Your task to perform on an android device: add a label to a message in the gmail app Image 0: 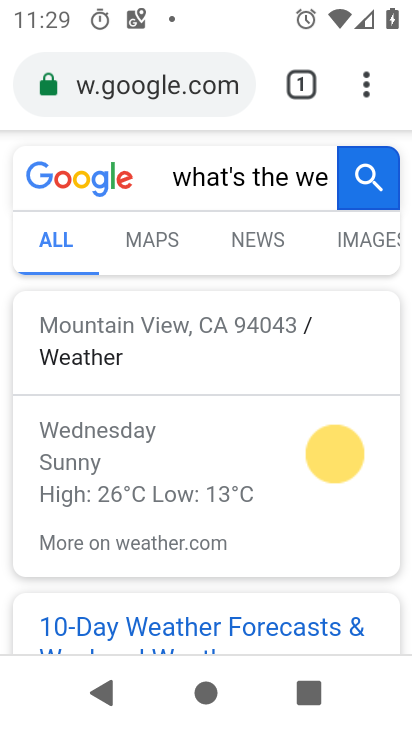
Step 0: press back button
Your task to perform on an android device: add a label to a message in the gmail app Image 1: 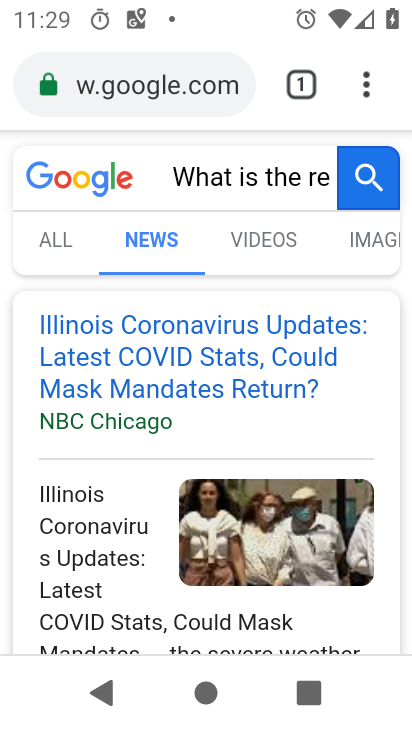
Step 1: press home button
Your task to perform on an android device: add a label to a message in the gmail app Image 2: 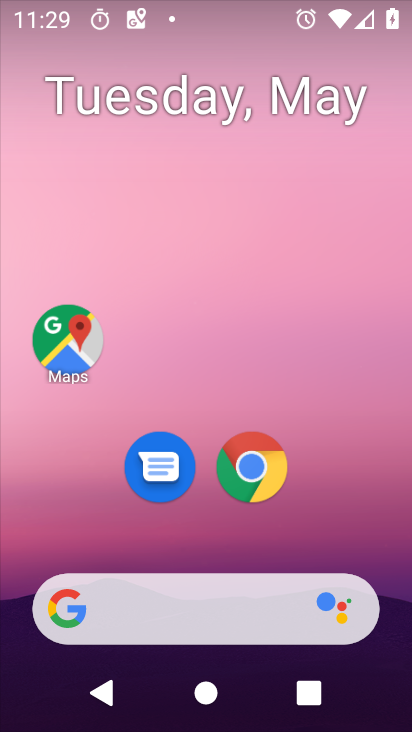
Step 2: drag from (353, 497) to (269, 16)
Your task to perform on an android device: add a label to a message in the gmail app Image 3: 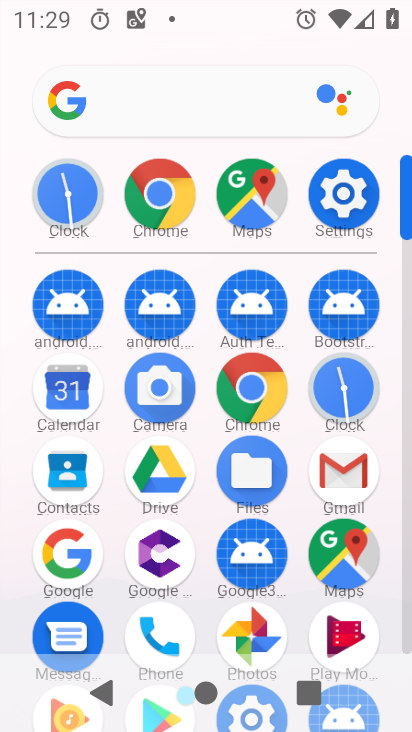
Step 3: click (340, 467)
Your task to perform on an android device: add a label to a message in the gmail app Image 4: 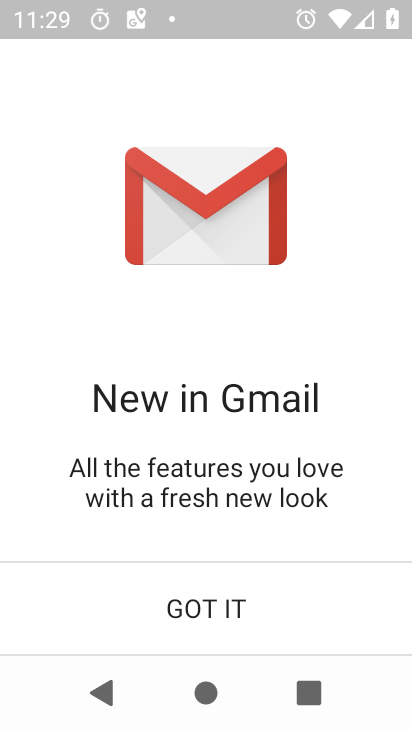
Step 4: click (238, 623)
Your task to perform on an android device: add a label to a message in the gmail app Image 5: 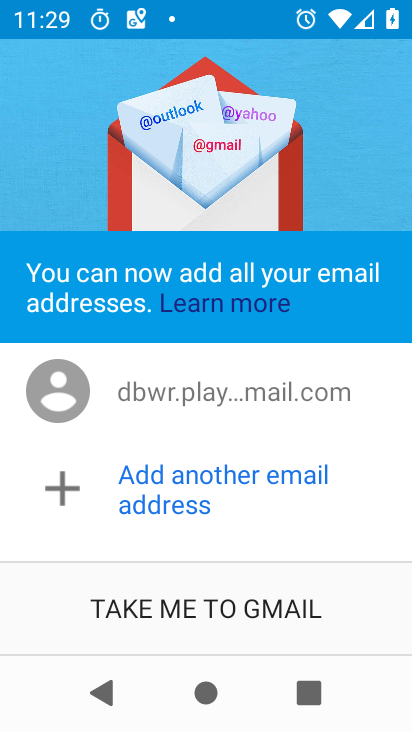
Step 5: click (238, 623)
Your task to perform on an android device: add a label to a message in the gmail app Image 6: 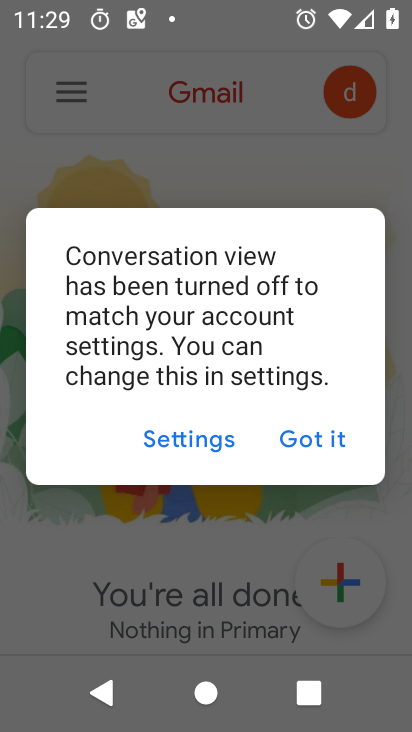
Step 6: click (294, 440)
Your task to perform on an android device: add a label to a message in the gmail app Image 7: 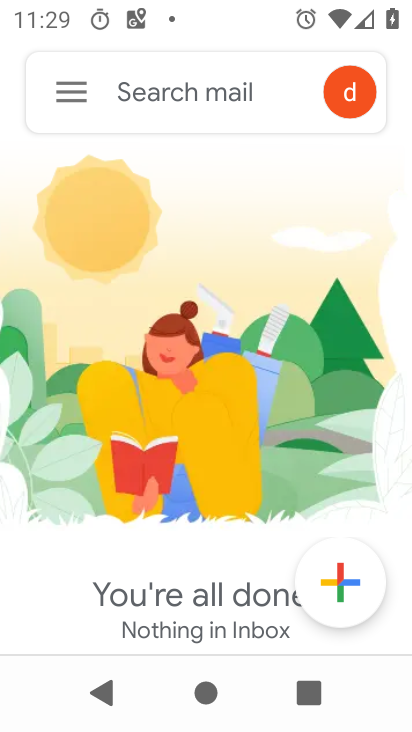
Step 7: click (59, 84)
Your task to perform on an android device: add a label to a message in the gmail app Image 8: 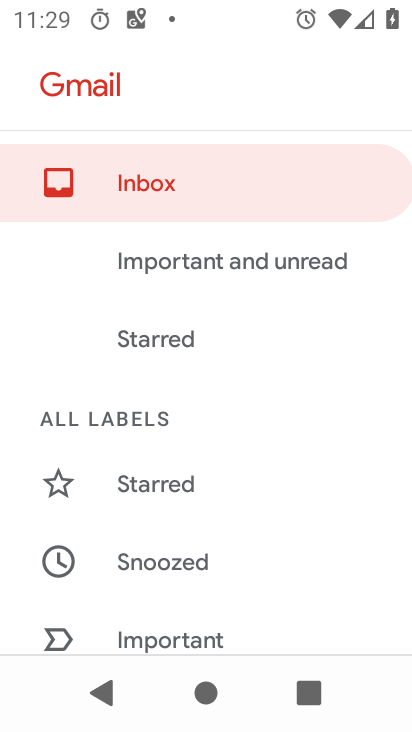
Step 8: drag from (232, 517) to (288, 139)
Your task to perform on an android device: add a label to a message in the gmail app Image 9: 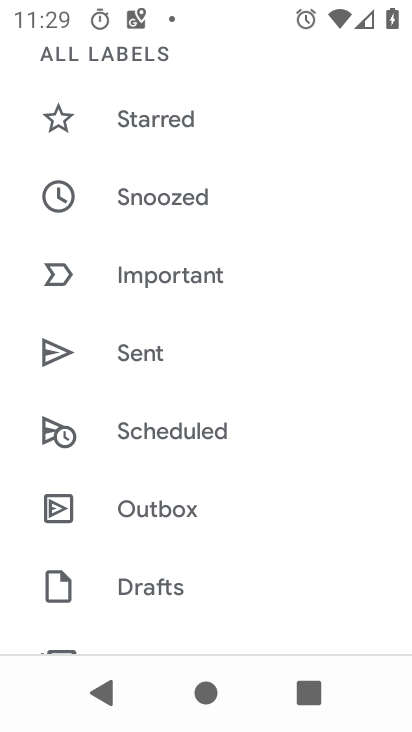
Step 9: drag from (203, 573) to (255, 169)
Your task to perform on an android device: add a label to a message in the gmail app Image 10: 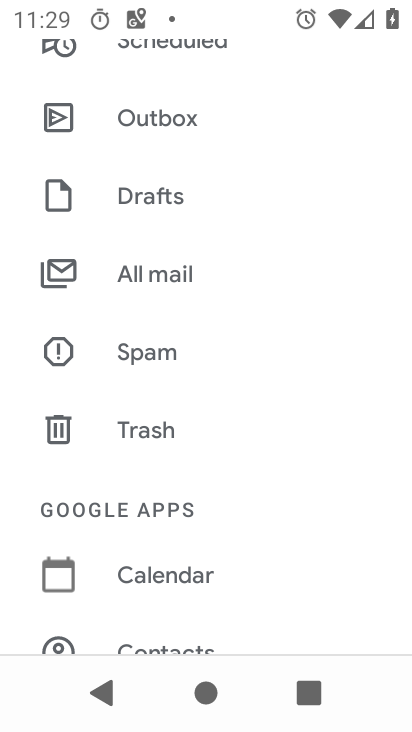
Step 10: click (184, 279)
Your task to perform on an android device: add a label to a message in the gmail app Image 11: 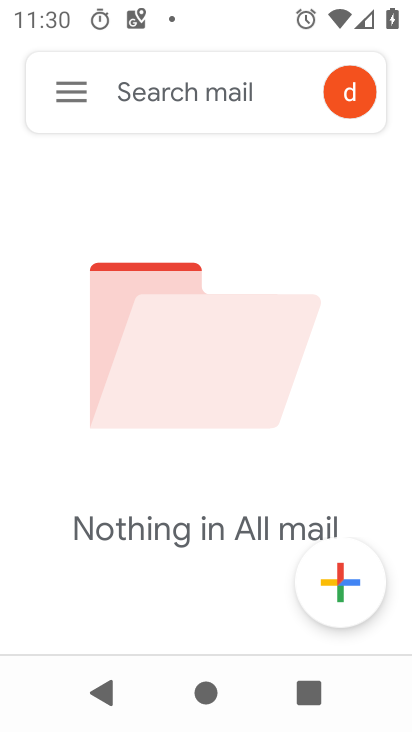
Step 11: click (45, 80)
Your task to perform on an android device: add a label to a message in the gmail app Image 12: 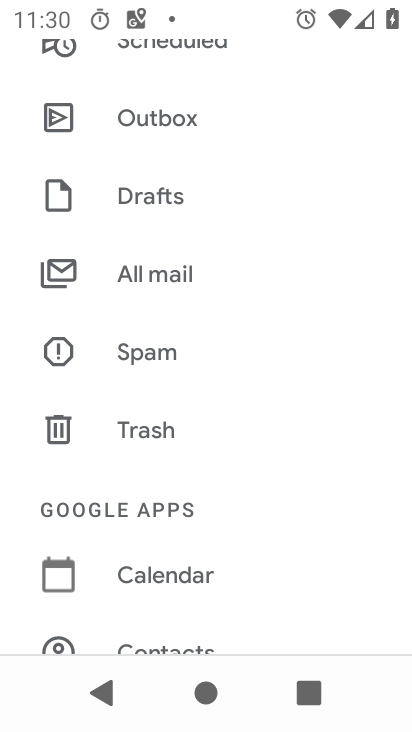
Step 12: click (189, 273)
Your task to perform on an android device: add a label to a message in the gmail app Image 13: 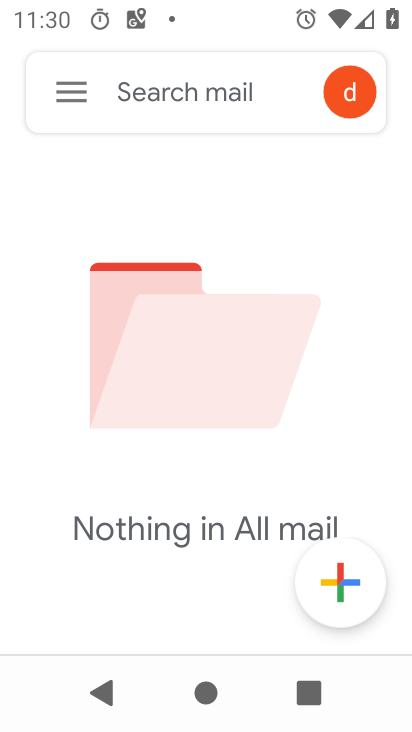
Step 13: task complete